Your task to perform on an android device: turn off airplane mode Image 0: 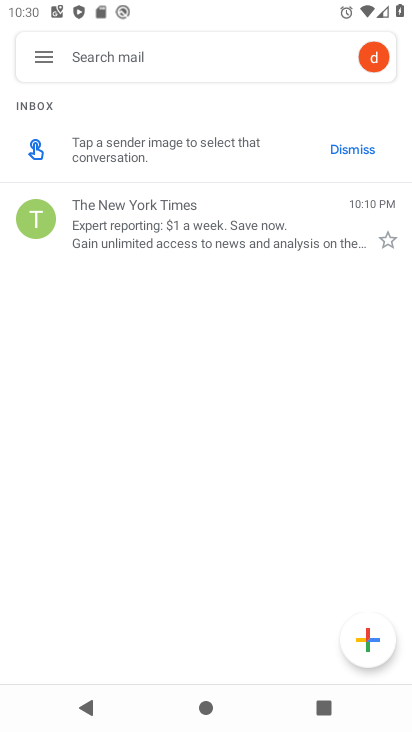
Step 0: press home button
Your task to perform on an android device: turn off airplane mode Image 1: 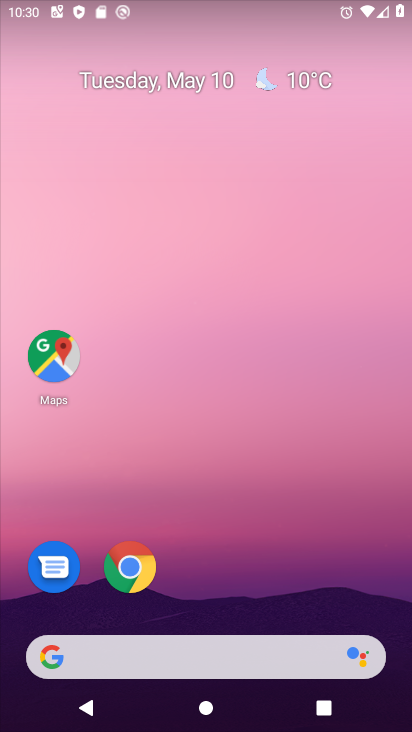
Step 1: drag from (253, 532) to (242, 0)
Your task to perform on an android device: turn off airplane mode Image 2: 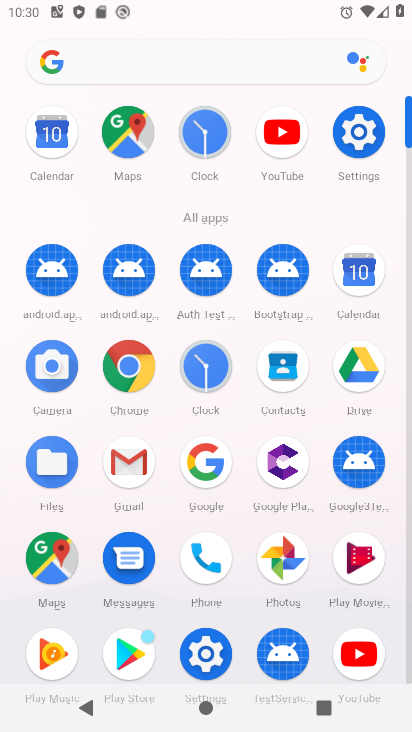
Step 2: click (371, 119)
Your task to perform on an android device: turn off airplane mode Image 3: 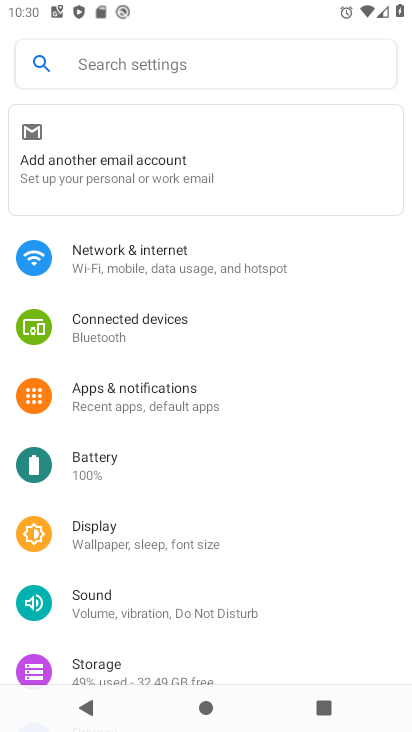
Step 3: click (127, 266)
Your task to perform on an android device: turn off airplane mode Image 4: 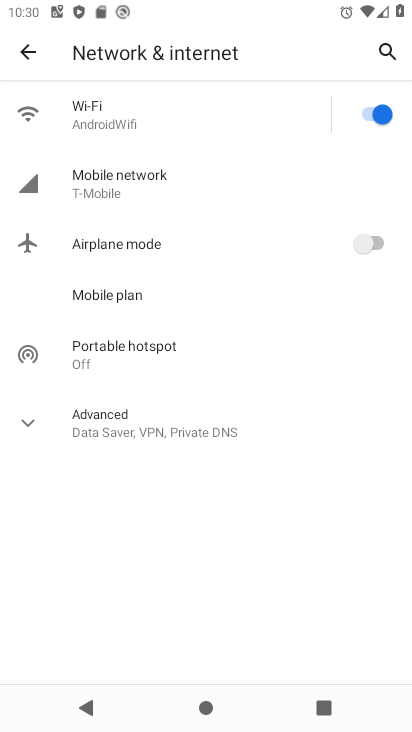
Step 4: task complete